Your task to perform on an android device: Open accessibility settings Image 0: 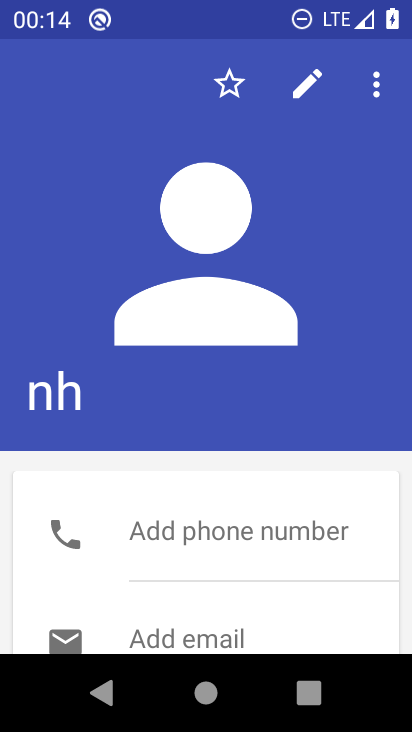
Step 0: drag from (239, 586) to (363, 211)
Your task to perform on an android device: Open accessibility settings Image 1: 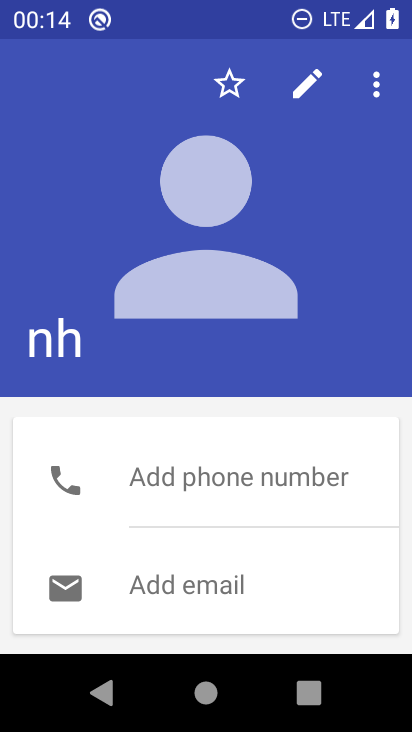
Step 1: press home button
Your task to perform on an android device: Open accessibility settings Image 2: 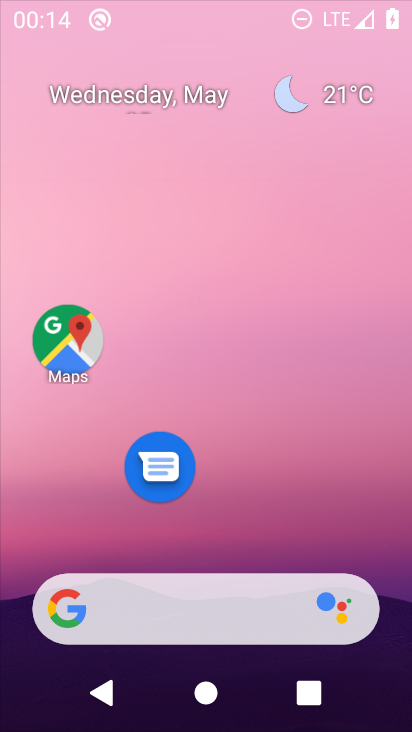
Step 2: drag from (258, 603) to (317, 108)
Your task to perform on an android device: Open accessibility settings Image 3: 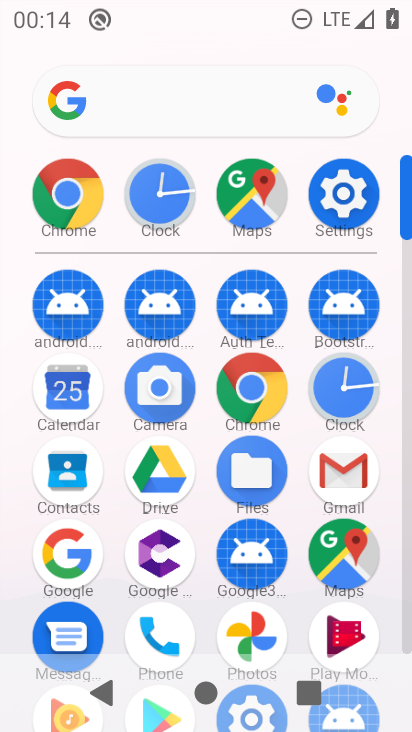
Step 3: click (339, 181)
Your task to perform on an android device: Open accessibility settings Image 4: 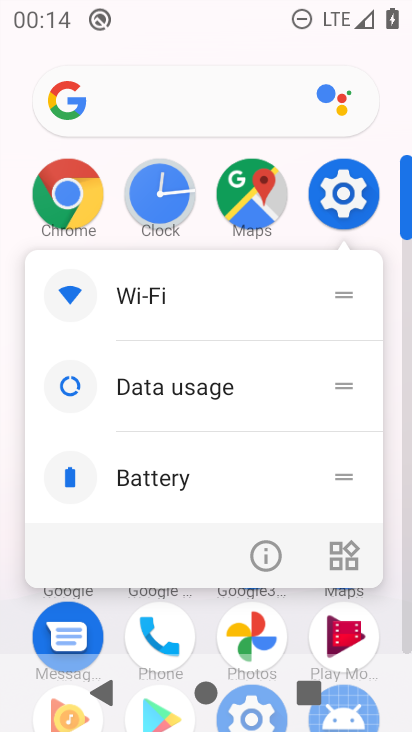
Step 4: click (266, 572)
Your task to perform on an android device: Open accessibility settings Image 5: 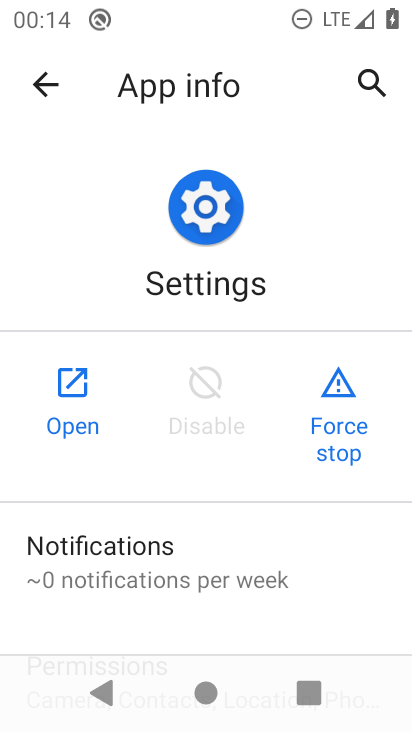
Step 5: click (95, 370)
Your task to perform on an android device: Open accessibility settings Image 6: 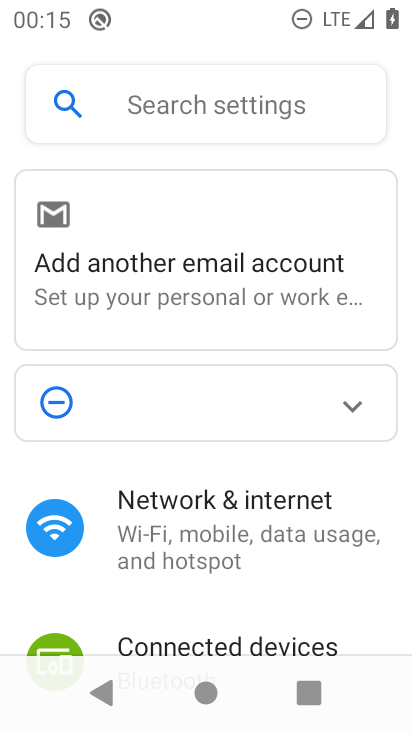
Step 6: drag from (187, 544) to (323, 91)
Your task to perform on an android device: Open accessibility settings Image 7: 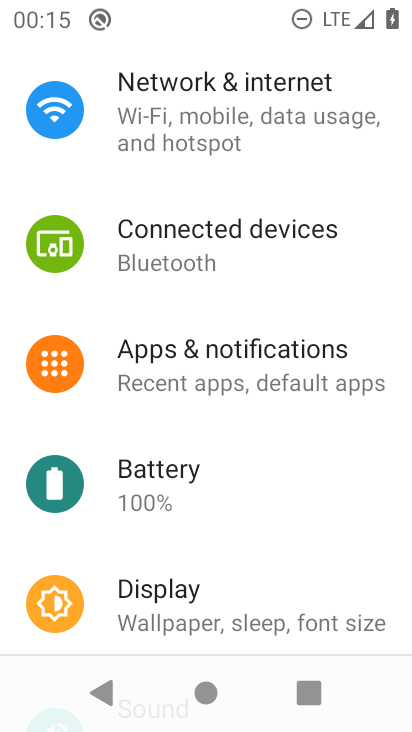
Step 7: drag from (235, 558) to (349, 59)
Your task to perform on an android device: Open accessibility settings Image 8: 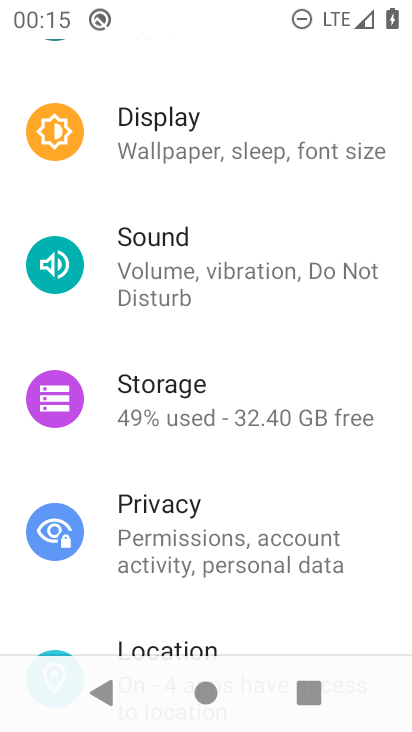
Step 8: drag from (196, 550) to (303, 91)
Your task to perform on an android device: Open accessibility settings Image 9: 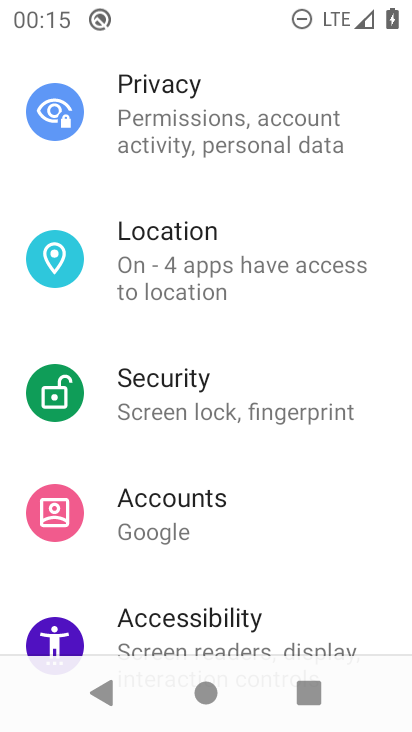
Step 9: click (186, 628)
Your task to perform on an android device: Open accessibility settings Image 10: 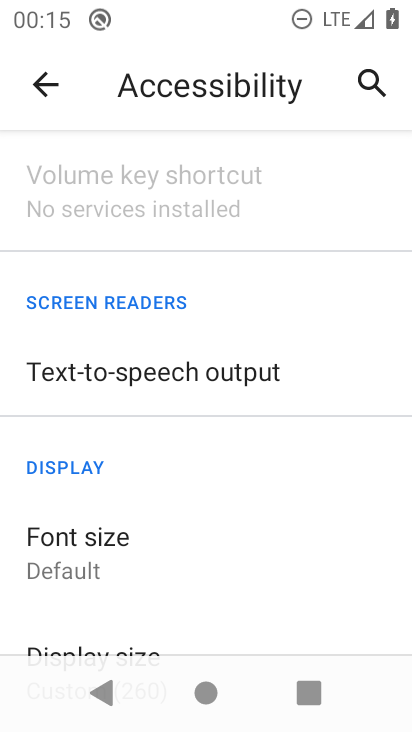
Step 10: task complete